Your task to perform on an android device: add a contact Image 0: 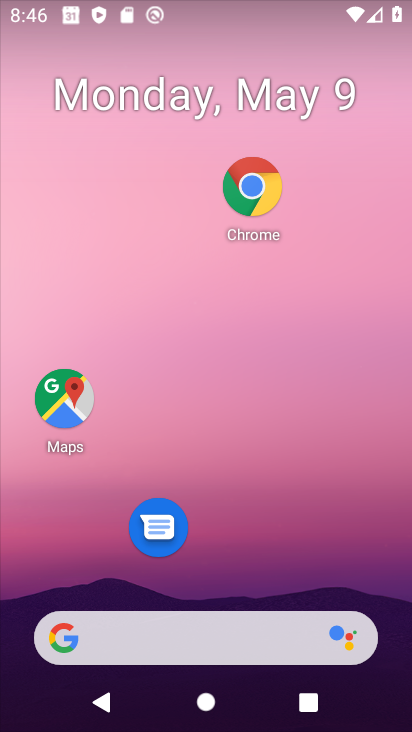
Step 0: drag from (210, 565) to (292, 2)
Your task to perform on an android device: add a contact Image 1: 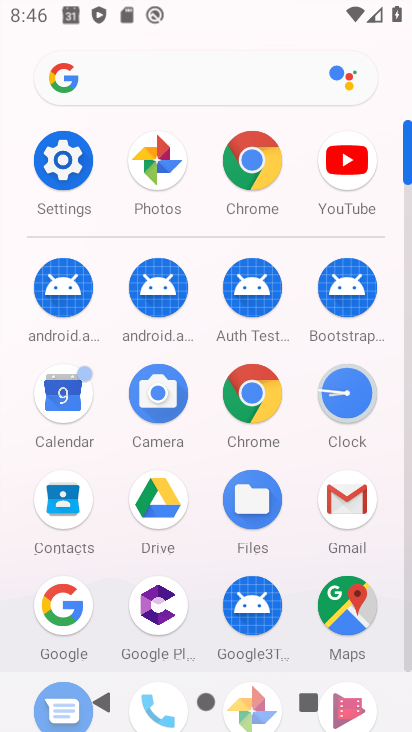
Step 1: click (62, 500)
Your task to perform on an android device: add a contact Image 2: 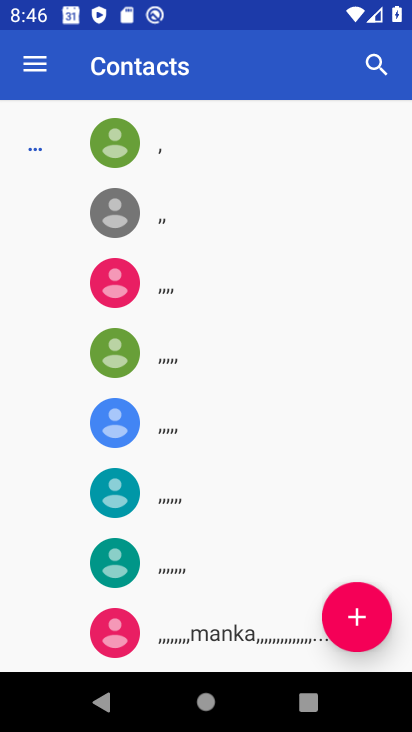
Step 2: click (355, 608)
Your task to perform on an android device: add a contact Image 3: 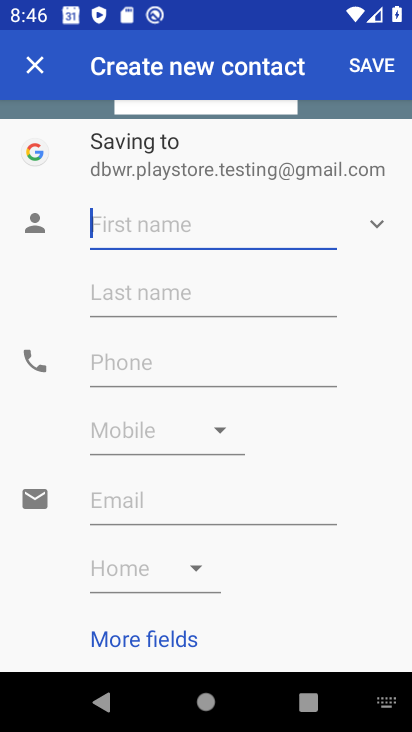
Step 3: type "nbvhgd"
Your task to perform on an android device: add a contact Image 4: 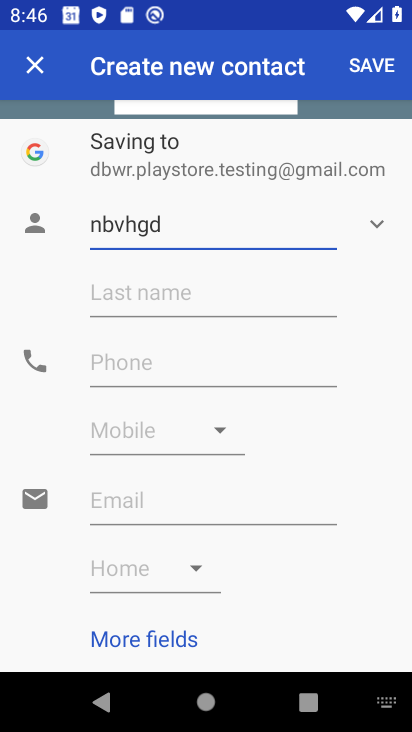
Step 4: click (361, 64)
Your task to perform on an android device: add a contact Image 5: 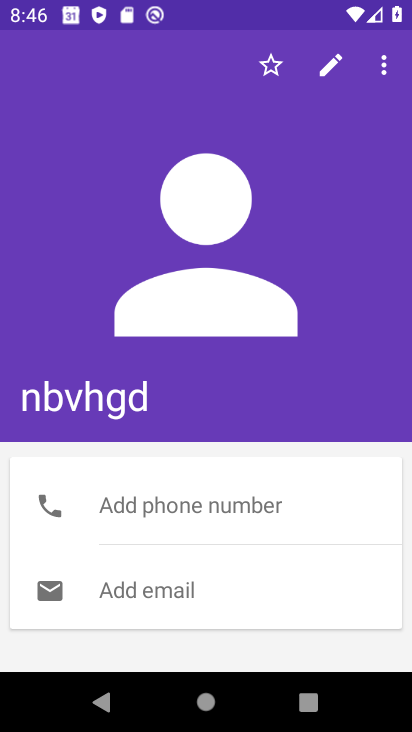
Step 5: task complete